Your task to perform on an android device: When is my next meeting? Image 0: 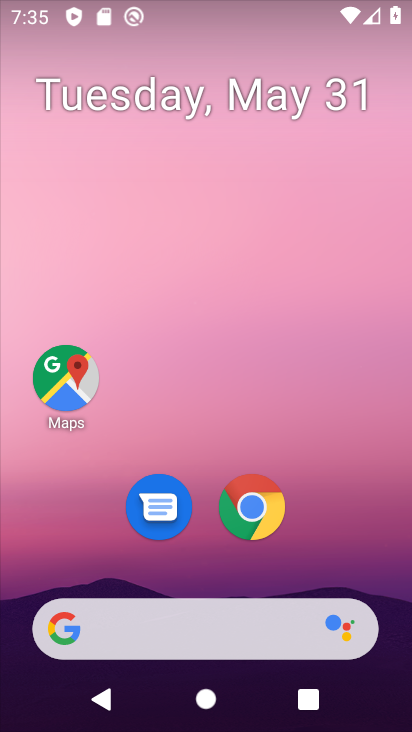
Step 0: drag from (325, 532) to (349, 131)
Your task to perform on an android device: When is my next meeting? Image 1: 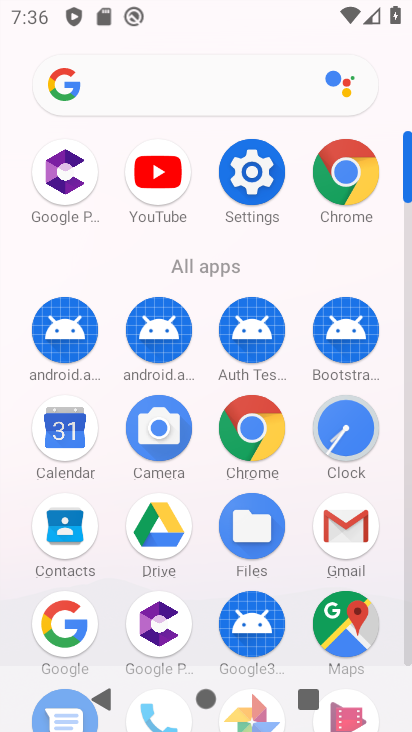
Step 1: click (63, 439)
Your task to perform on an android device: When is my next meeting? Image 2: 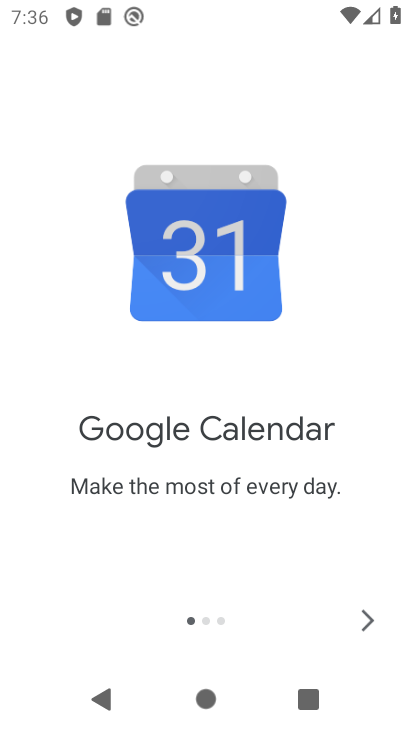
Step 2: click (373, 617)
Your task to perform on an android device: When is my next meeting? Image 3: 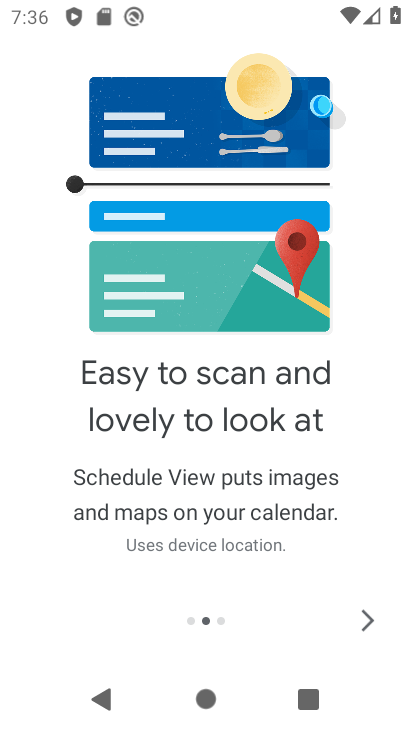
Step 3: click (369, 613)
Your task to perform on an android device: When is my next meeting? Image 4: 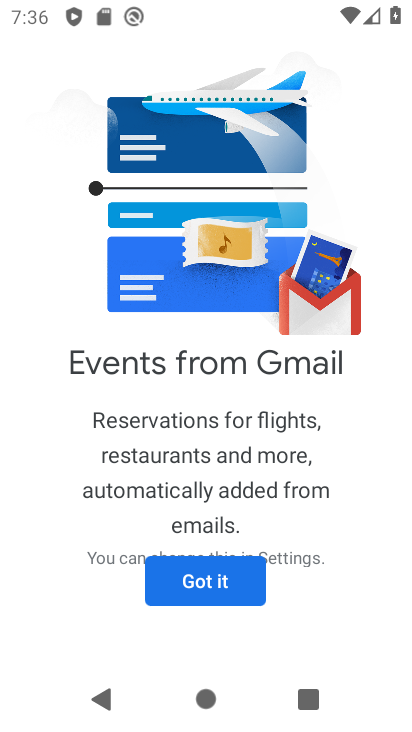
Step 4: click (211, 570)
Your task to perform on an android device: When is my next meeting? Image 5: 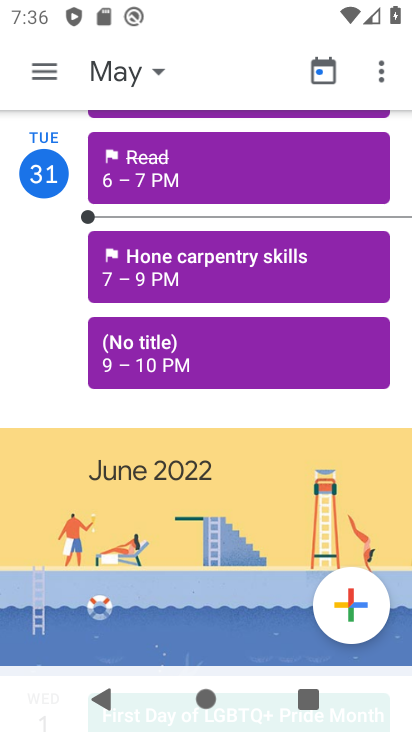
Step 5: click (108, 79)
Your task to perform on an android device: When is my next meeting? Image 6: 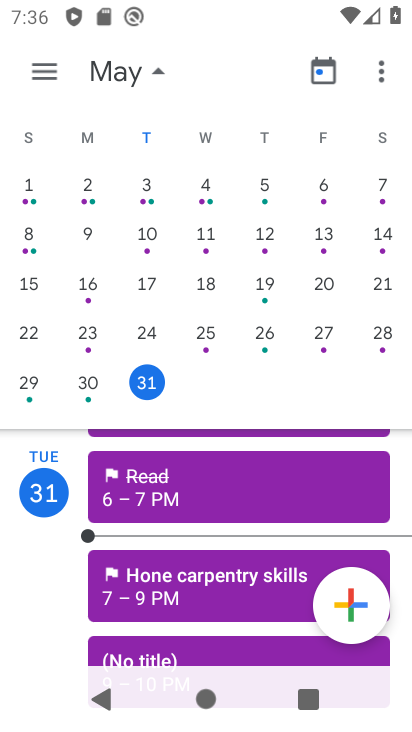
Step 6: drag from (358, 251) to (49, 251)
Your task to perform on an android device: When is my next meeting? Image 7: 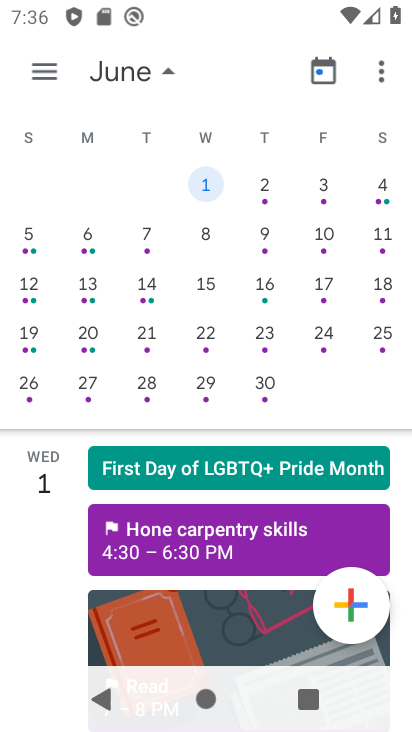
Step 7: click (47, 71)
Your task to perform on an android device: When is my next meeting? Image 8: 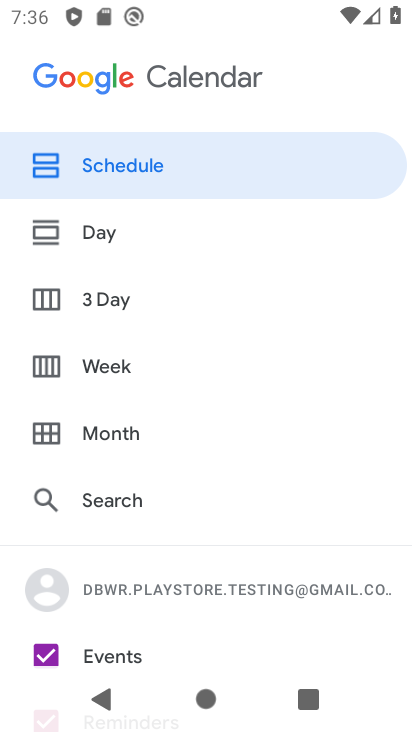
Step 8: click (79, 298)
Your task to perform on an android device: When is my next meeting? Image 9: 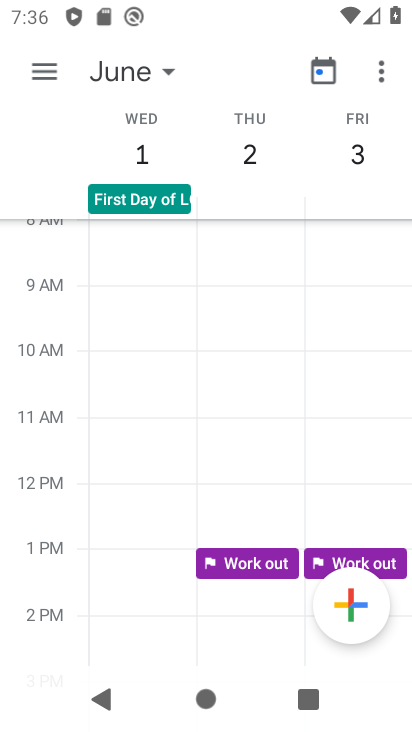
Step 9: click (273, 164)
Your task to perform on an android device: When is my next meeting? Image 10: 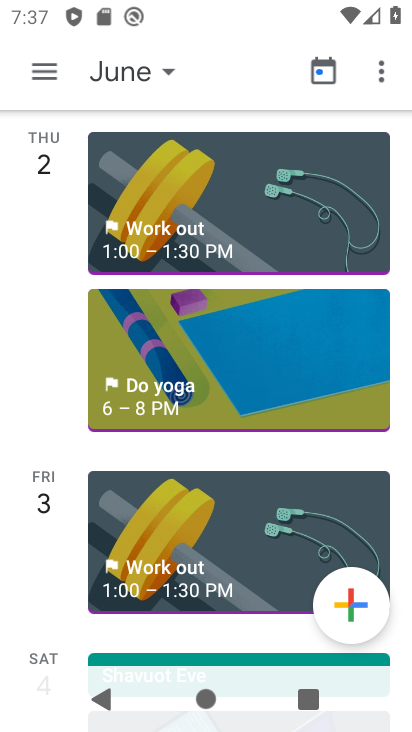
Step 10: click (54, 80)
Your task to perform on an android device: When is my next meeting? Image 11: 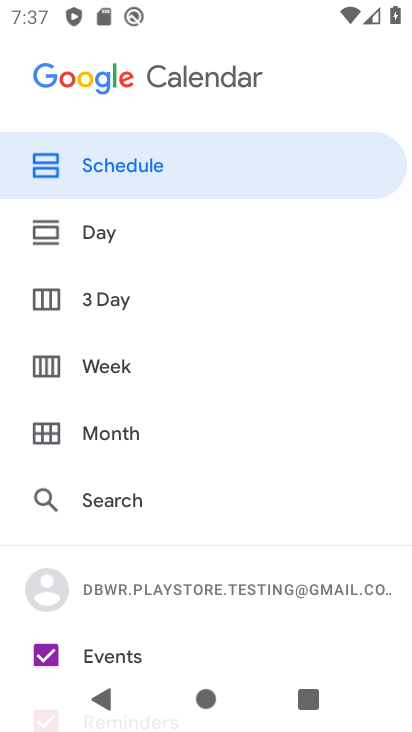
Step 11: click (98, 294)
Your task to perform on an android device: When is my next meeting? Image 12: 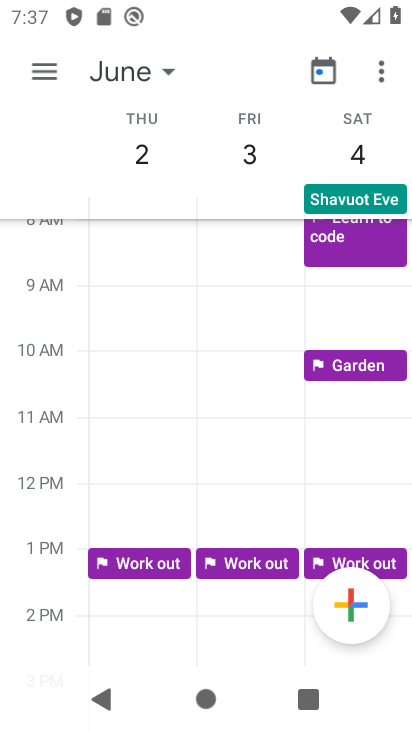
Step 12: task complete